Your task to perform on an android device: allow notifications from all sites in the chrome app Image 0: 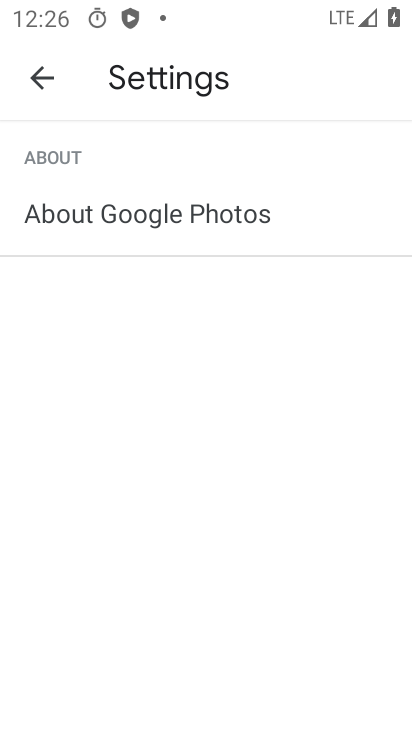
Step 0: press home button
Your task to perform on an android device: allow notifications from all sites in the chrome app Image 1: 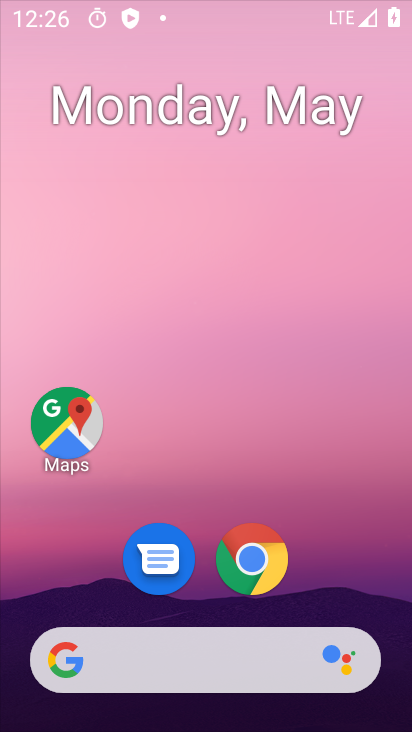
Step 1: drag from (171, 657) to (248, 380)
Your task to perform on an android device: allow notifications from all sites in the chrome app Image 2: 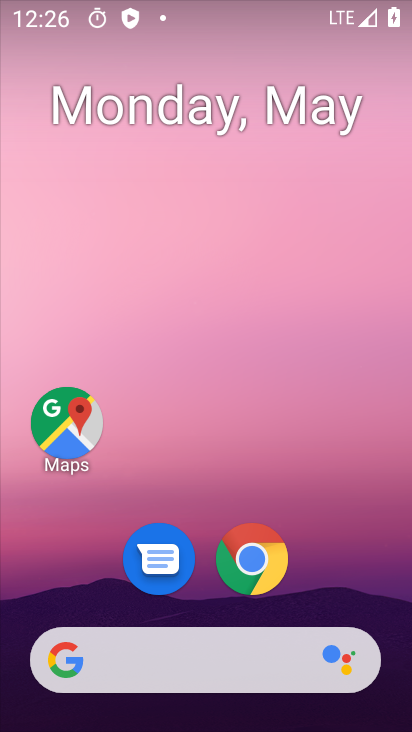
Step 2: click (270, 392)
Your task to perform on an android device: allow notifications from all sites in the chrome app Image 3: 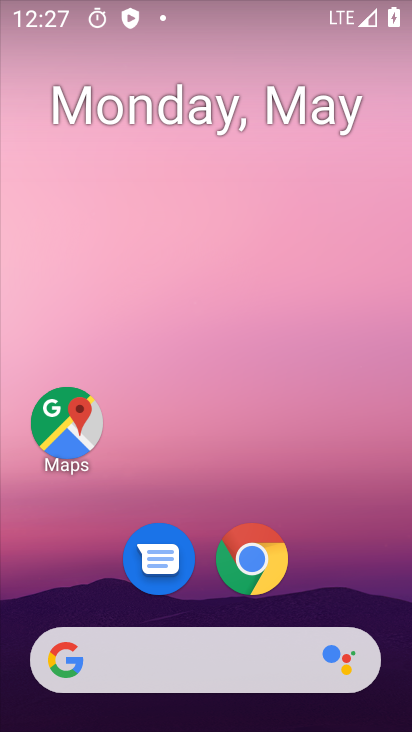
Step 3: drag from (324, 507) to (410, 505)
Your task to perform on an android device: allow notifications from all sites in the chrome app Image 4: 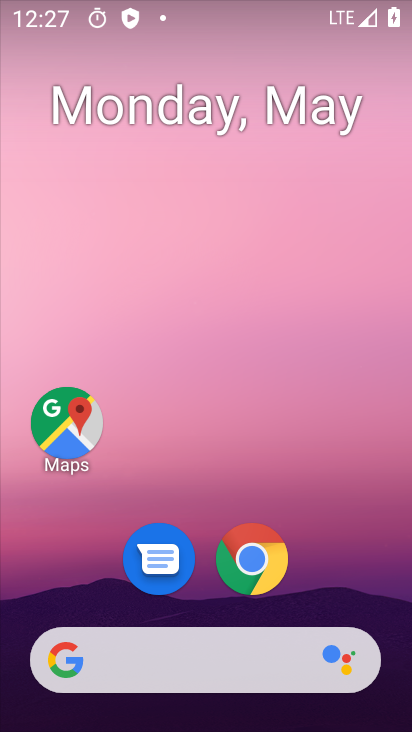
Step 4: drag from (389, 620) to (301, 12)
Your task to perform on an android device: allow notifications from all sites in the chrome app Image 5: 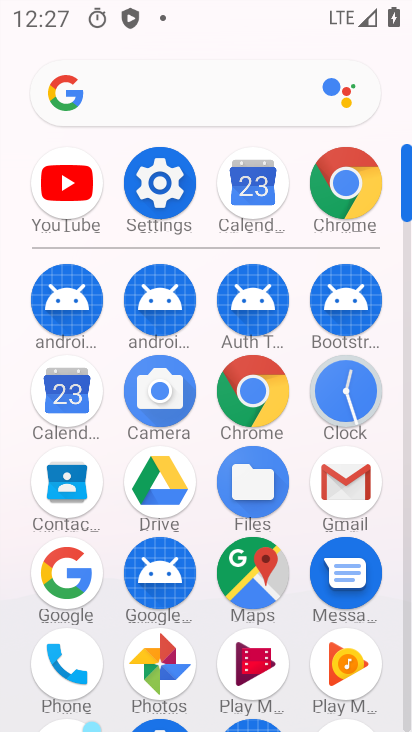
Step 5: click (283, 410)
Your task to perform on an android device: allow notifications from all sites in the chrome app Image 6: 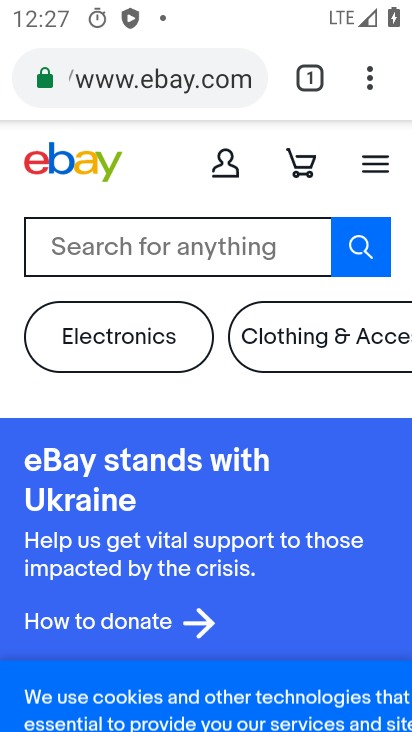
Step 6: drag from (372, 69) to (193, 621)
Your task to perform on an android device: allow notifications from all sites in the chrome app Image 7: 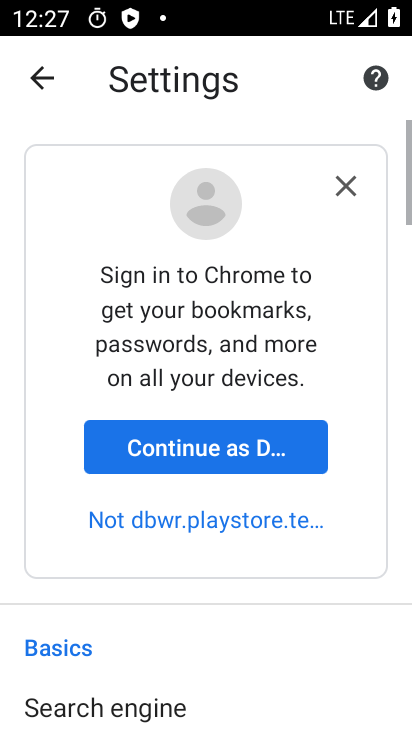
Step 7: drag from (159, 651) to (250, 223)
Your task to perform on an android device: allow notifications from all sites in the chrome app Image 8: 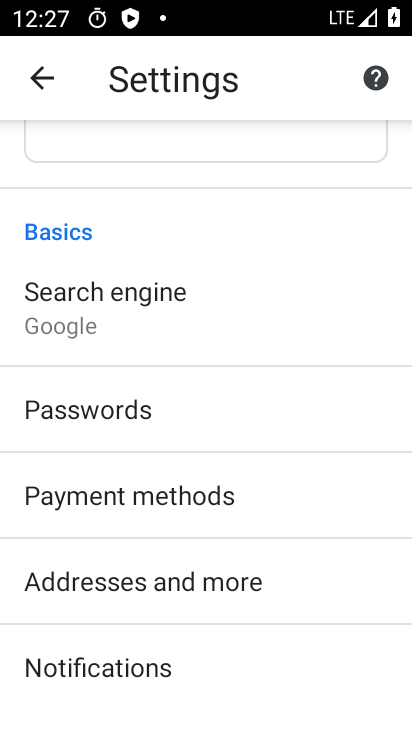
Step 8: drag from (286, 628) to (346, 66)
Your task to perform on an android device: allow notifications from all sites in the chrome app Image 9: 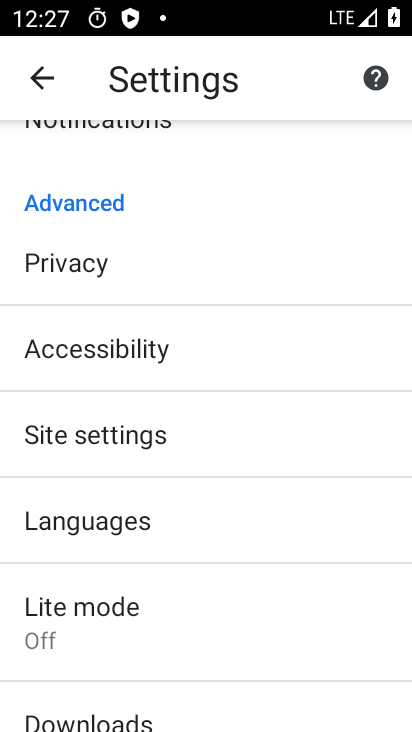
Step 9: click (168, 449)
Your task to perform on an android device: allow notifications from all sites in the chrome app Image 10: 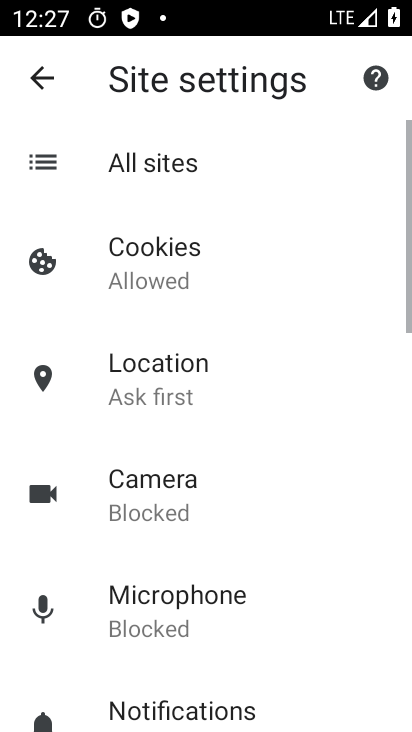
Step 10: drag from (358, 512) to (411, 150)
Your task to perform on an android device: allow notifications from all sites in the chrome app Image 11: 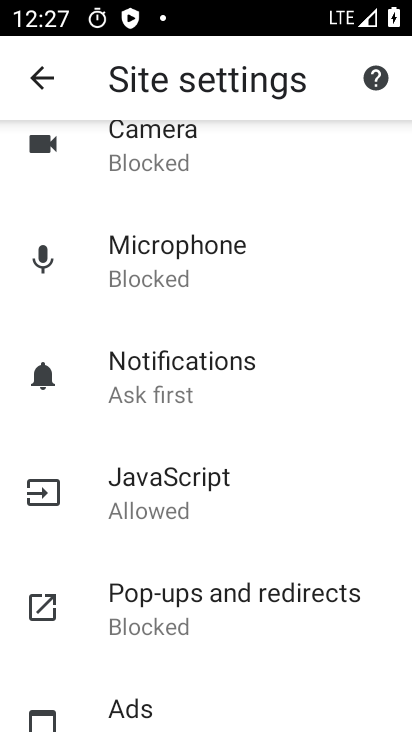
Step 11: click (197, 401)
Your task to perform on an android device: allow notifications from all sites in the chrome app Image 12: 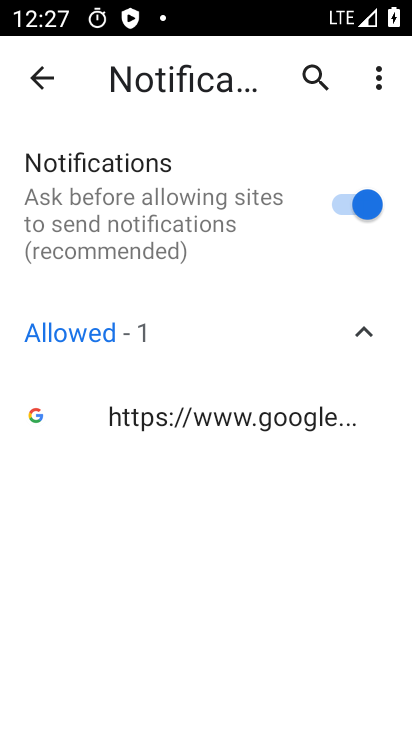
Step 12: task complete